Your task to perform on an android device: show emergency info Image 0: 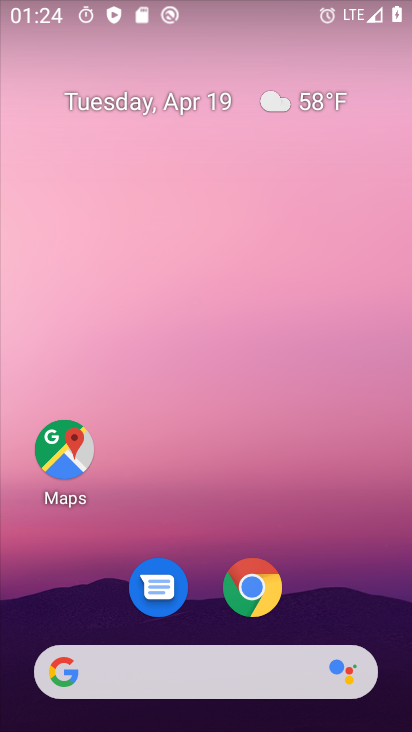
Step 0: drag from (317, 573) to (312, 178)
Your task to perform on an android device: show emergency info Image 1: 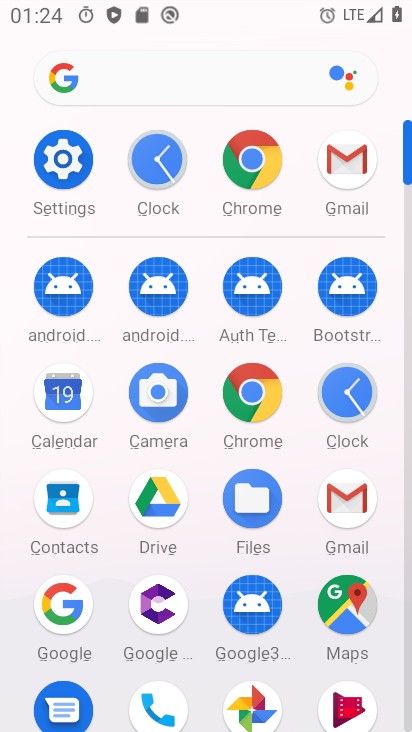
Step 1: click (58, 163)
Your task to perform on an android device: show emergency info Image 2: 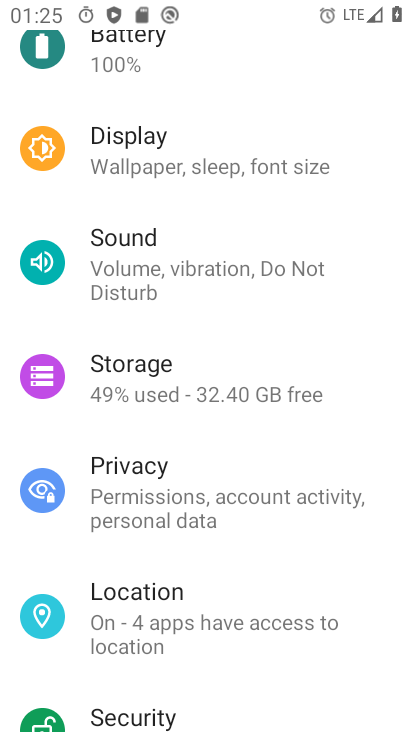
Step 2: drag from (251, 670) to (273, 323)
Your task to perform on an android device: show emergency info Image 3: 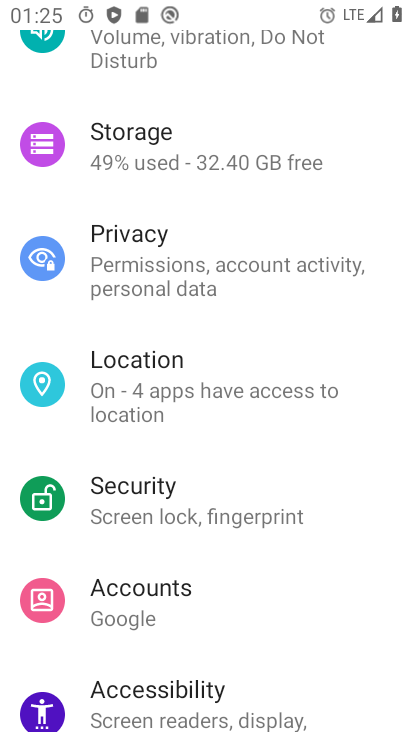
Step 3: drag from (225, 592) to (282, 304)
Your task to perform on an android device: show emergency info Image 4: 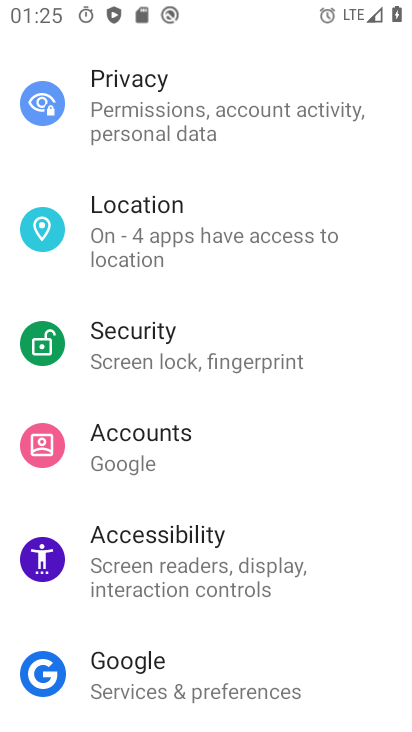
Step 4: drag from (203, 692) to (270, 305)
Your task to perform on an android device: show emergency info Image 5: 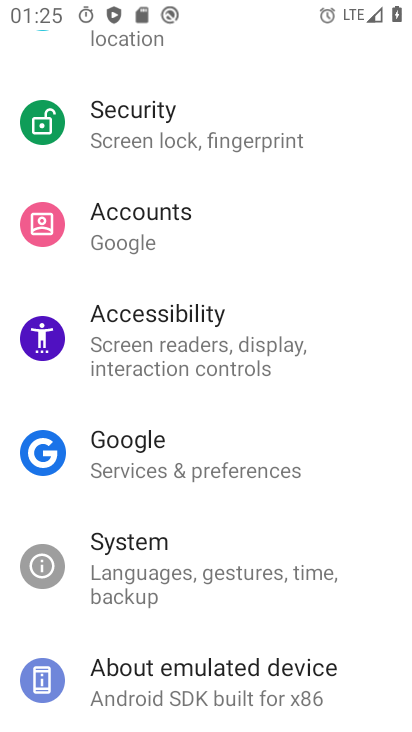
Step 5: click (224, 691)
Your task to perform on an android device: show emergency info Image 6: 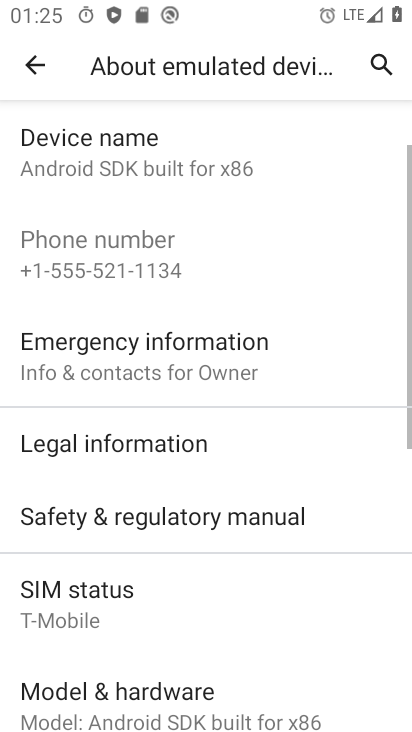
Step 6: click (202, 358)
Your task to perform on an android device: show emergency info Image 7: 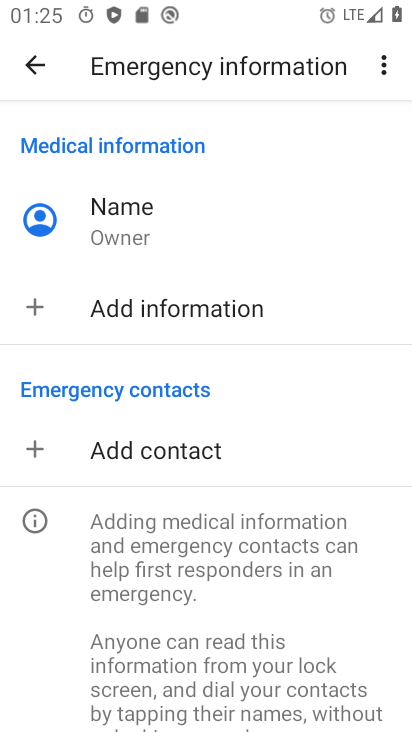
Step 7: task complete